Your task to perform on an android device: Turn on the flashlight Image 0: 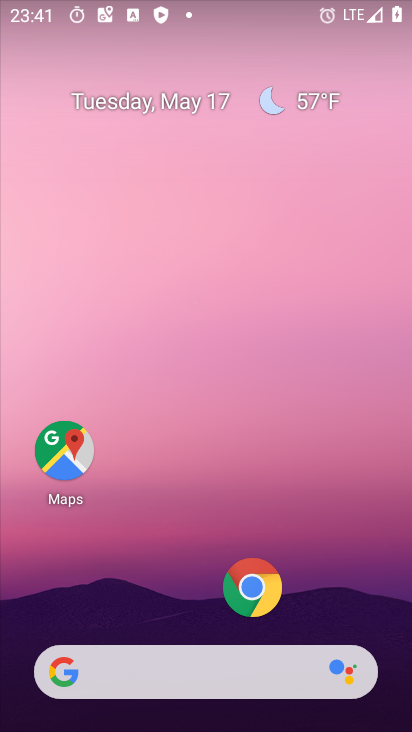
Step 0: drag from (20, 608) to (258, 207)
Your task to perform on an android device: Turn on the flashlight Image 1: 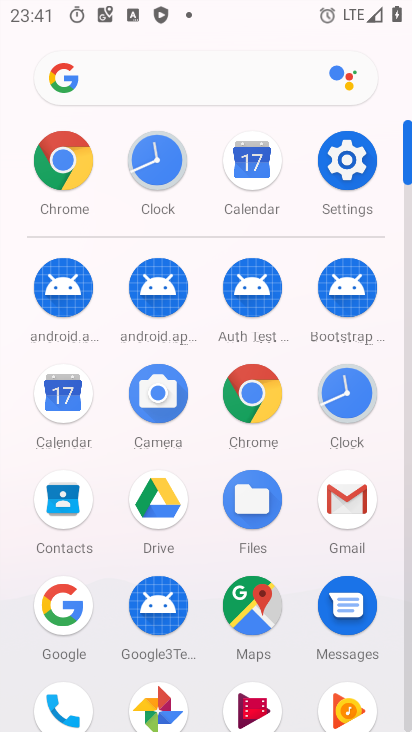
Step 1: click (338, 163)
Your task to perform on an android device: Turn on the flashlight Image 2: 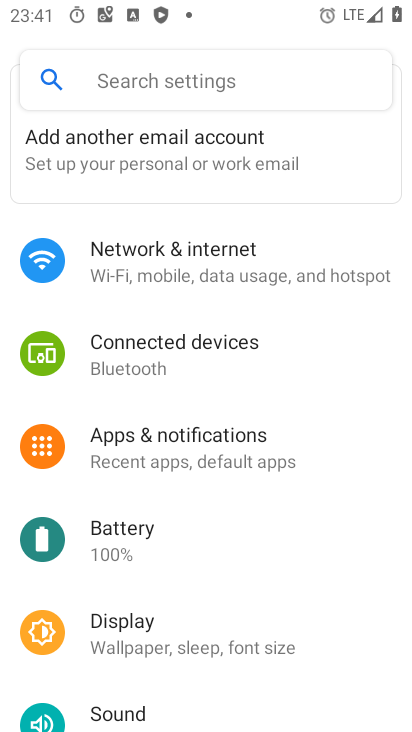
Step 2: click (125, 635)
Your task to perform on an android device: Turn on the flashlight Image 3: 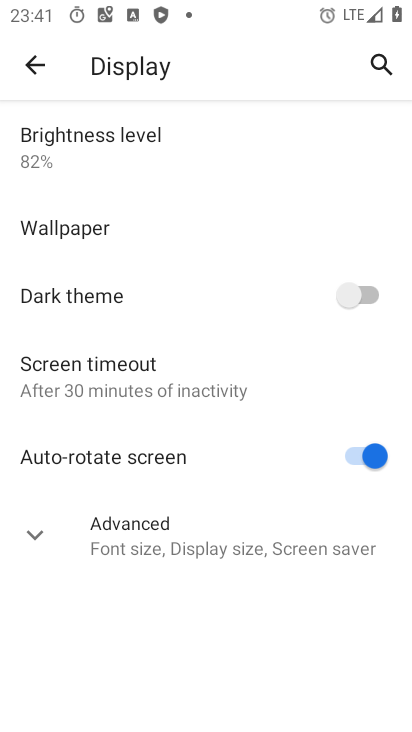
Step 3: task complete